Your task to perform on an android device: Do I have any events today? Image 0: 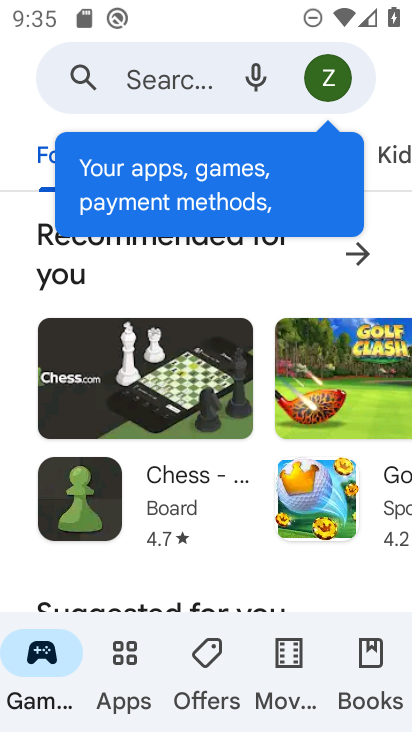
Step 0: press home button
Your task to perform on an android device: Do I have any events today? Image 1: 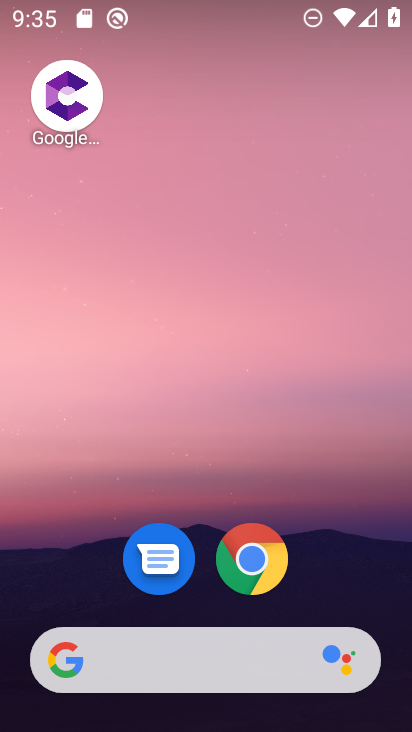
Step 1: drag from (352, 584) to (351, 135)
Your task to perform on an android device: Do I have any events today? Image 2: 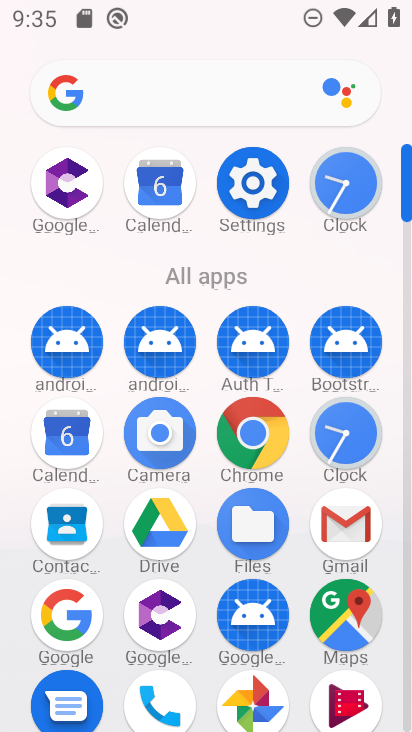
Step 2: click (75, 443)
Your task to perform on an android device: Do I have any events today? Image 3: 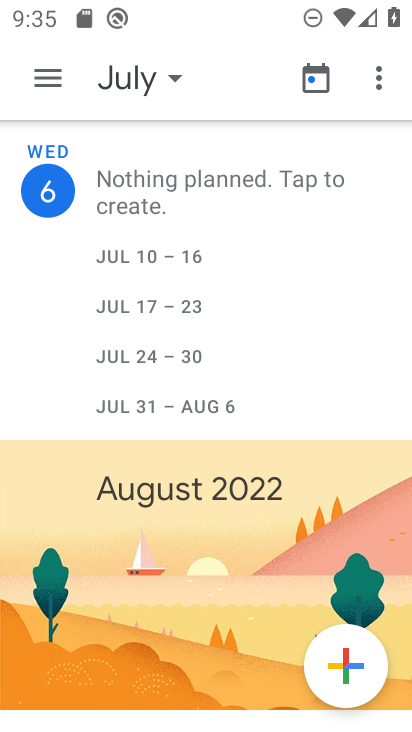
Step 3: click (172, 77)
Your task to perform on an android device: Do I have any events today? Image 4: 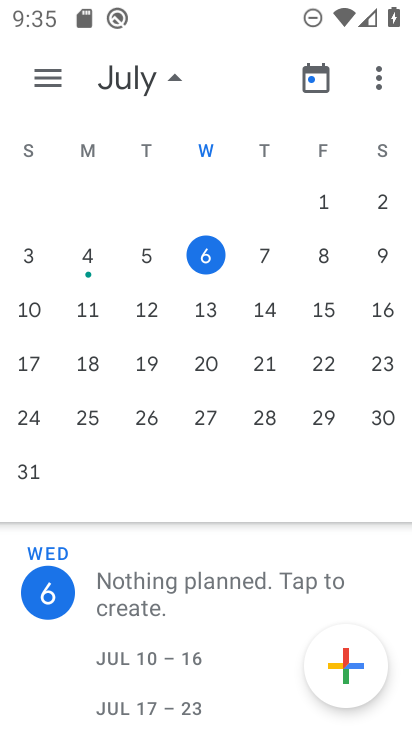
Step 4: click (264, 243)
Your task to perform on an android device: Do I have any events today? Image 5: 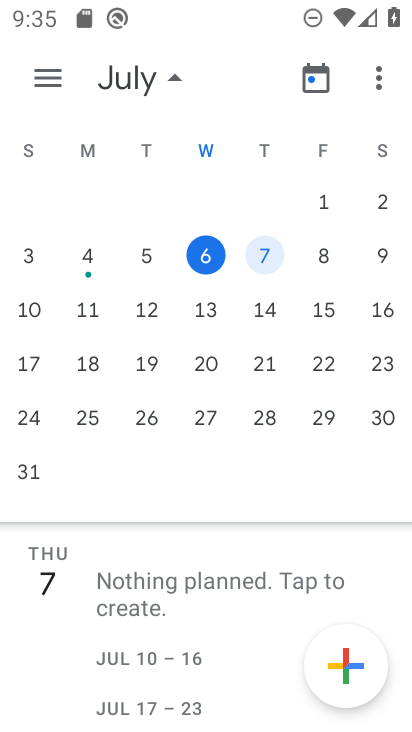
Step 5: drag from (234, 600) to (251, 328)
Your task to perform on an android device: Do I have any events today? Image 6: 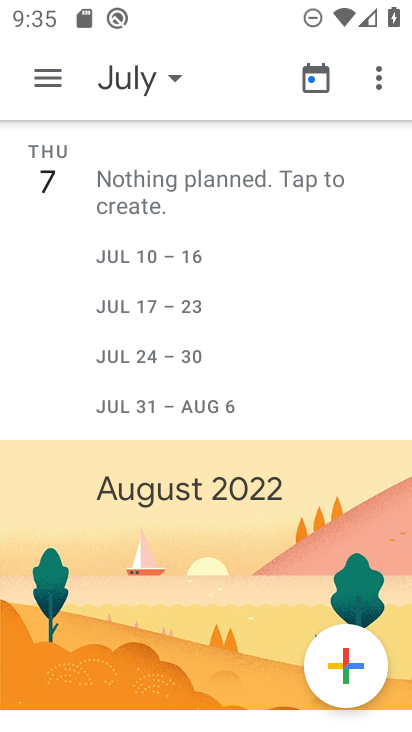
Step 6: click (152, 173)
Your task to perform on an android device: Do I have any events today? Image 7: 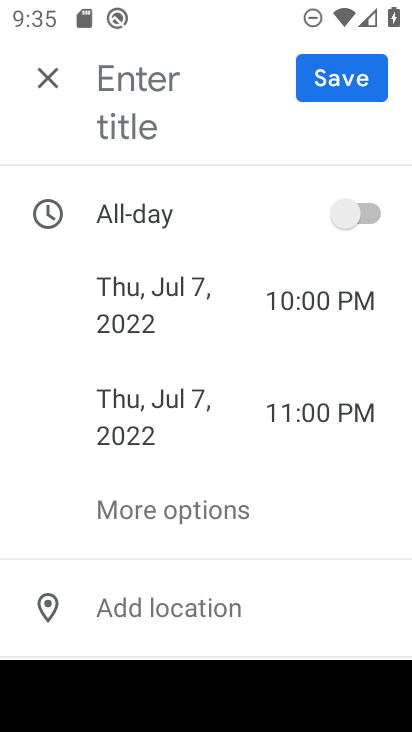
Step 7: task complete